Your task to perform on an android device: Go to sound settings Image 0: 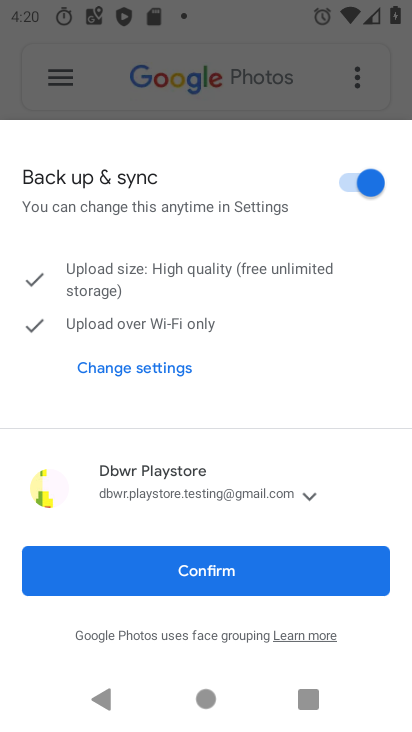
Step 0: press home button
Your task to perform on an android device: Go to sound settings Image 1: 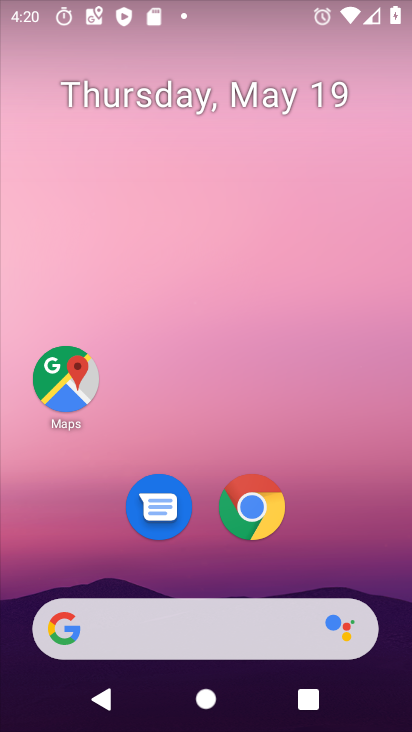
Step 1: click (395, 293)
Your task to perform on an android device: Go to sound settings Image 2: 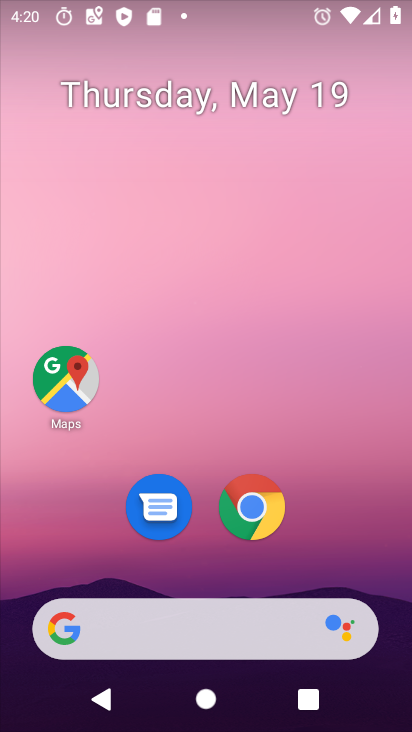
Step 2: drag from (387, 655) to (355, 309)
Your task to perform on an android device: Go to sound settings Image 3: 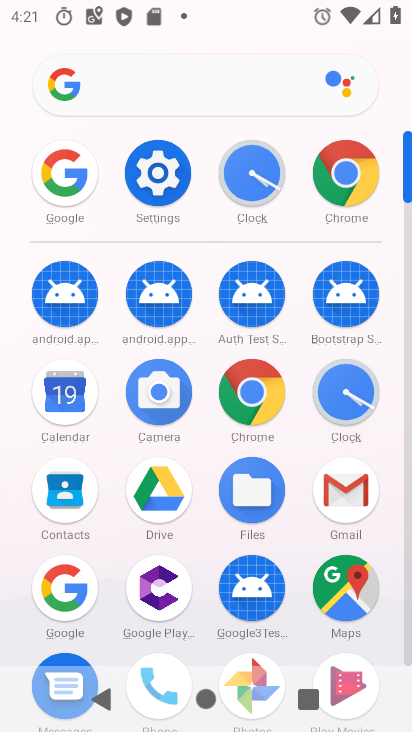
Step 3: click (157, 177)
Your task to perform on an android device: Go to sound settings Image 4: 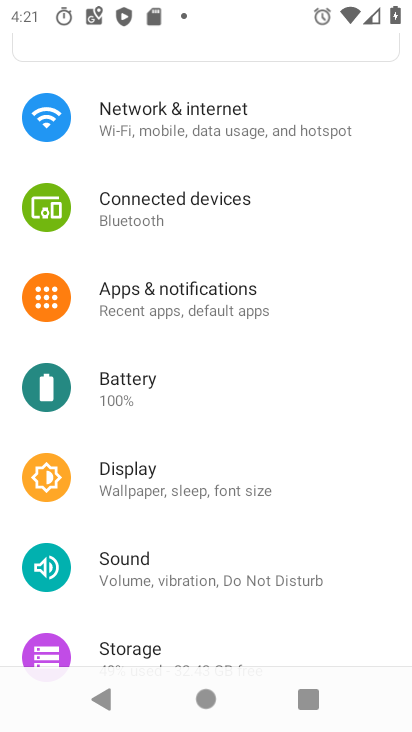
Step 4: click (108, 569)
Your task to perform on an android device: Go to sound settings Image 5: 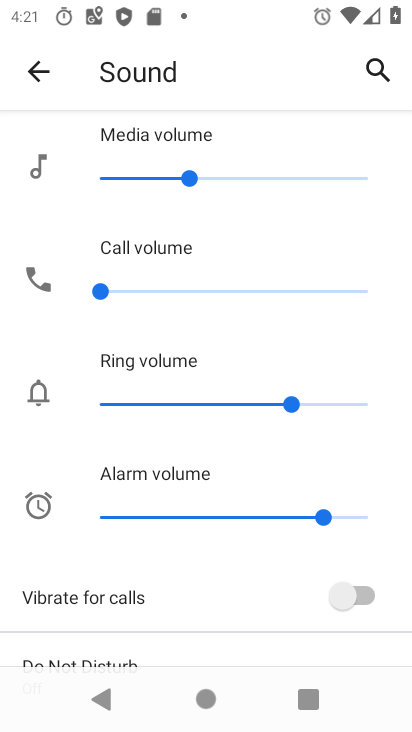
Step 5: task complete